Your task to perform on an android device: open app "Mercado Libre" Image 0: 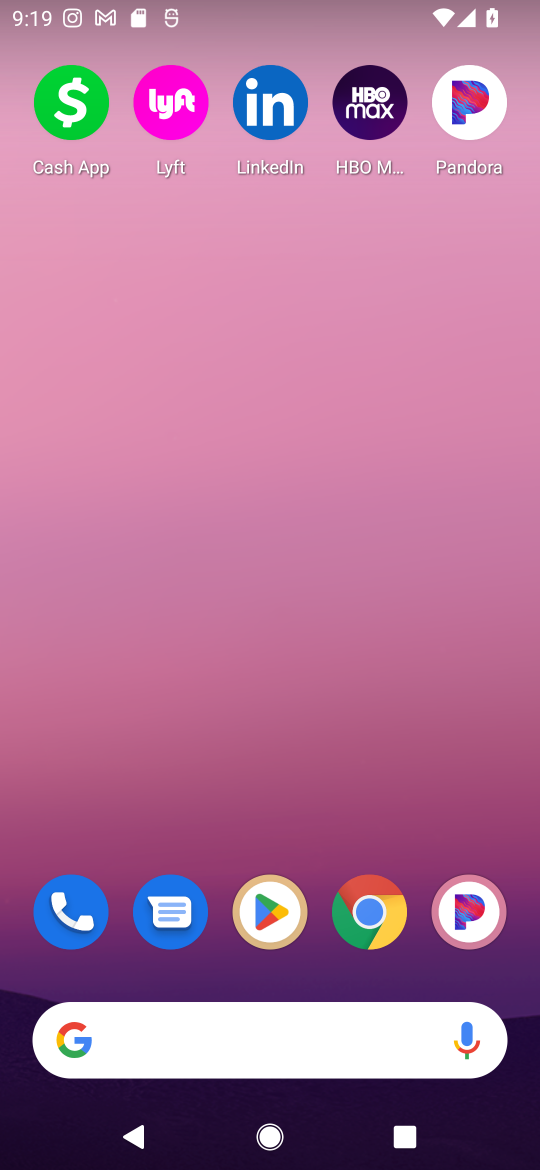
Step 0: click (263, 914)
Your task to perform on an android device: open app "Mercado Libre" Image 1: 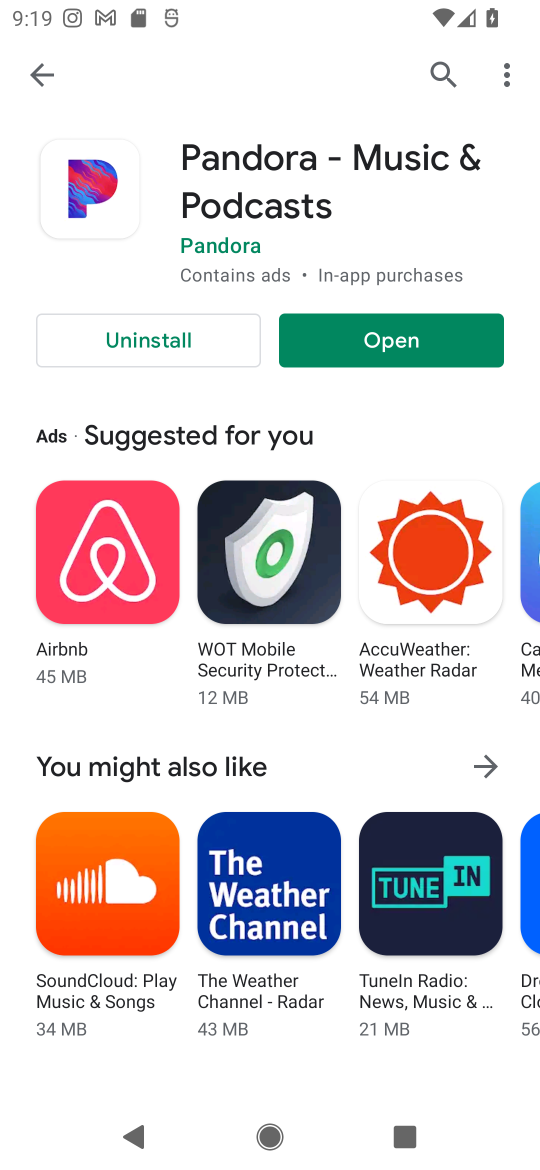
Step 1: click (441, 73)
Your task to perform on an android device: open app "Mercado Libre" Image 2: 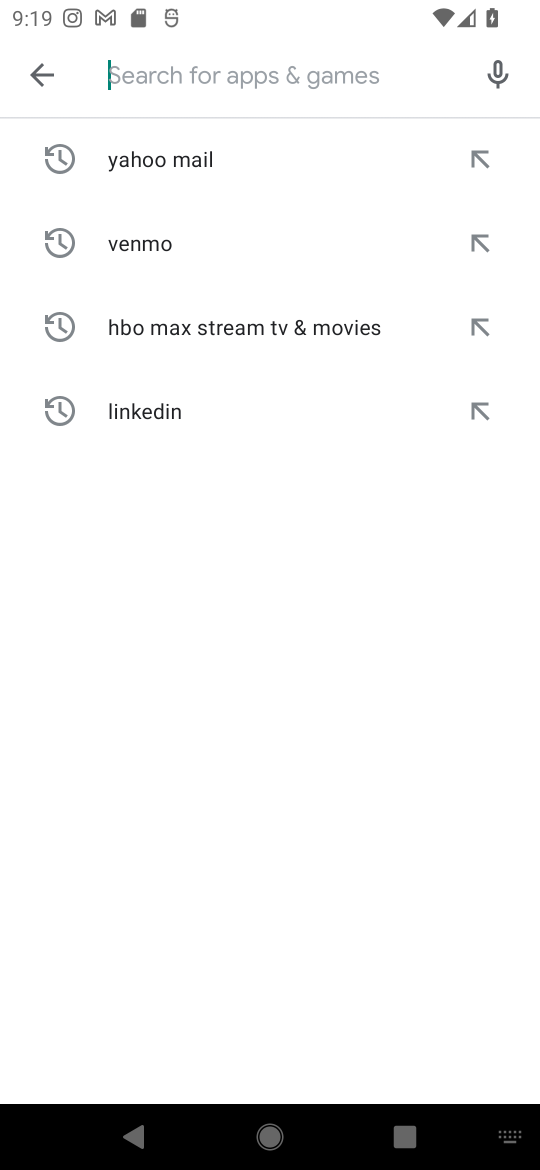
Step 2: type "Mercado Libre"
Your task to perform on an android device: open app "Mercado Libre" Image 3: 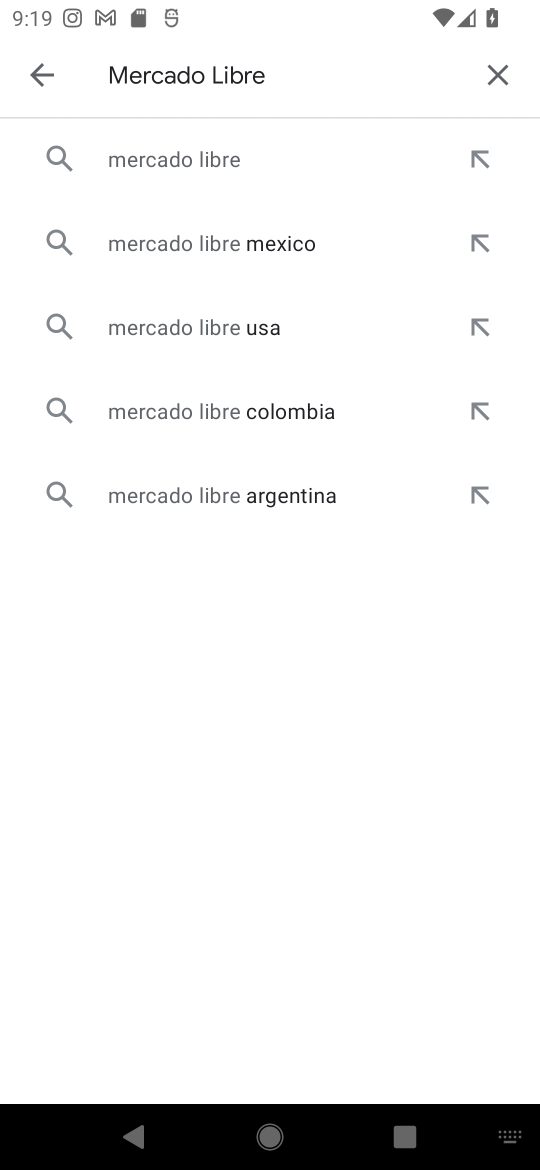
Step 3: click (197, 152)
Your task to perform on an android device: open app "Mercado Libre" Image 4: 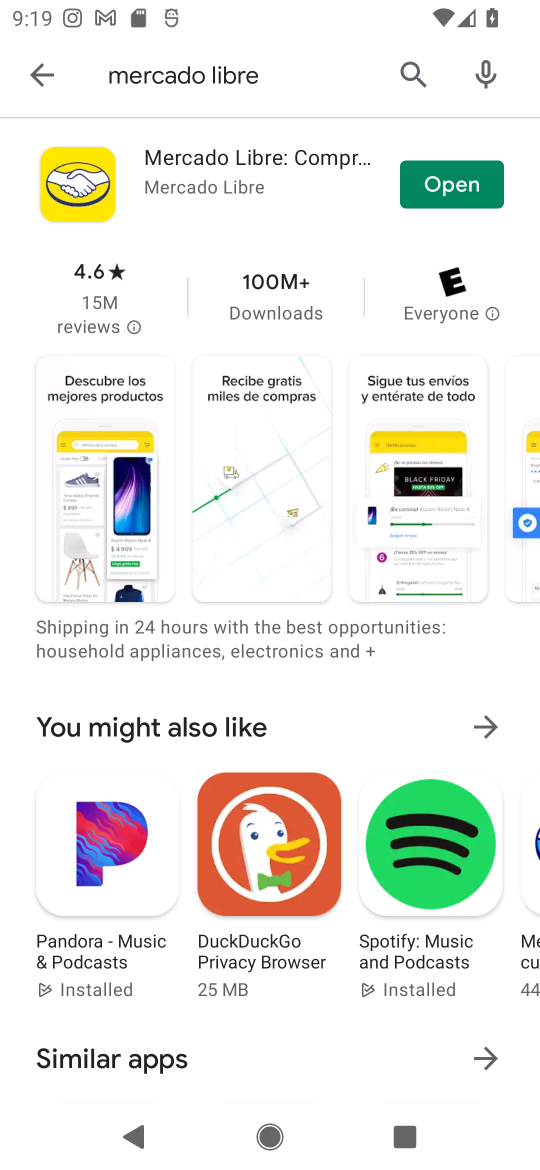
Step 4: click (470, 189)
Your task to perform on an android device: open app "Mercado Libre" Image 5: 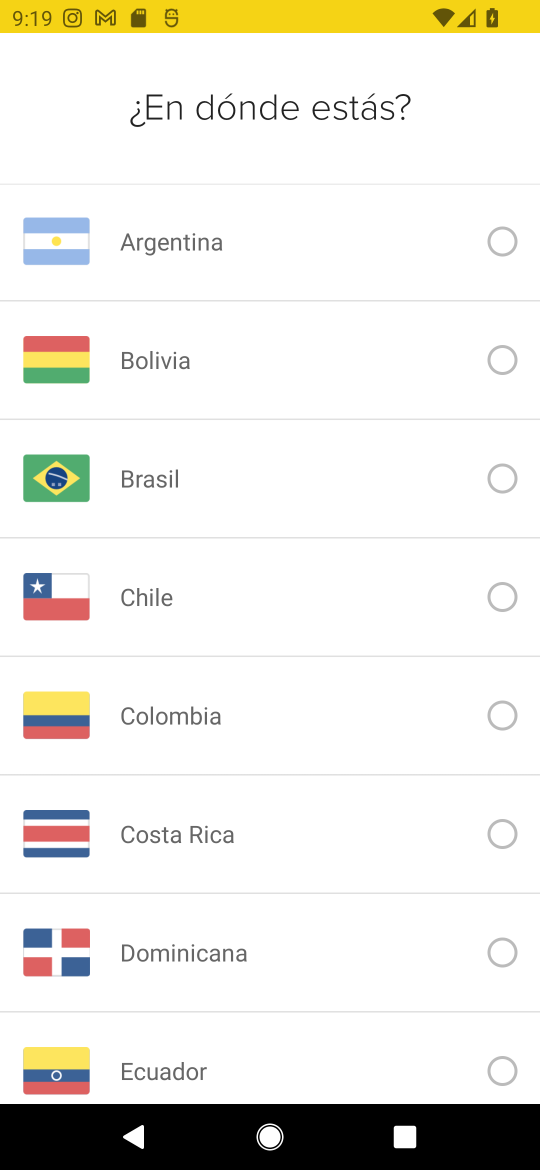
Step 5: task complete